Your task to perform on an android device: Search for "logitech g pro" on target.com, select the first entry, add it to the cart, then select checkout. Image 0: 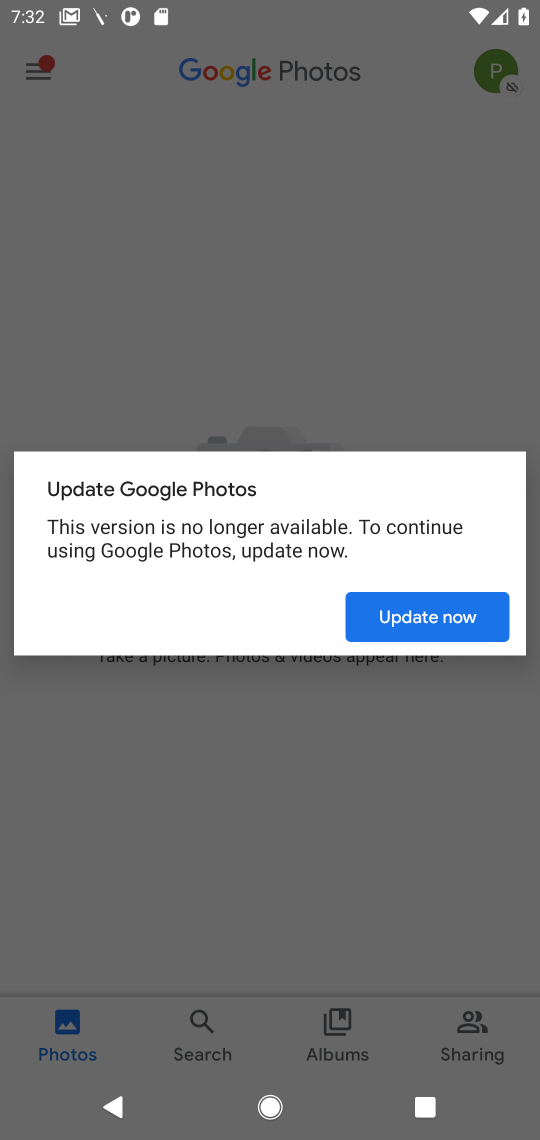
Step 0: press home button
Your task to perform on an android device: Search for "logitech g pro" on target.com, select the first entry, add it to the cart, then select checkout. Image 1: 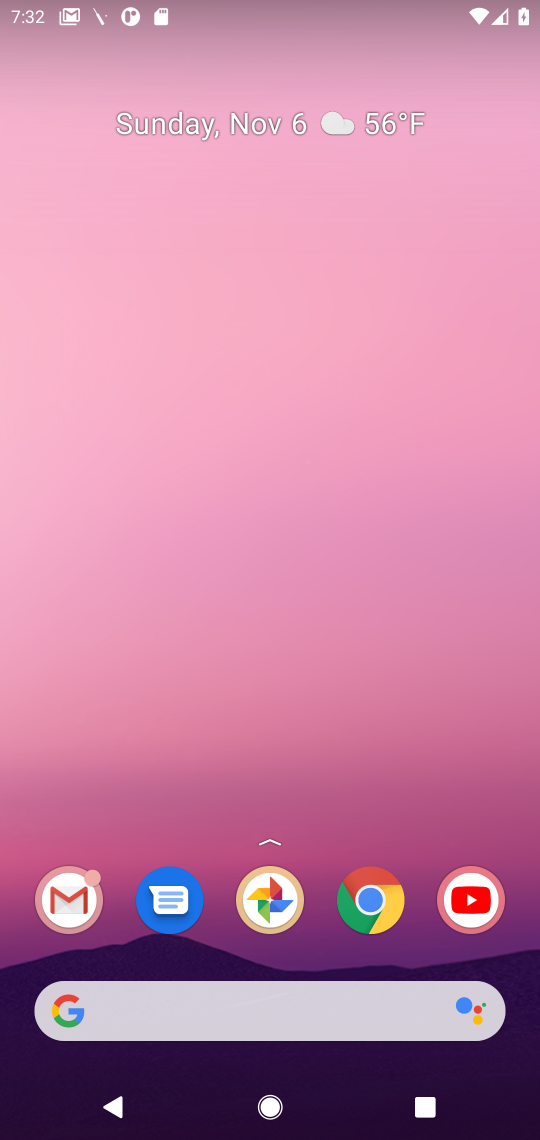
Step 1: drag from (325, 533) to (308, 0)
Your task to perform on an android device: Search for "logitech g pro" on target.com, select the first entry, add it to the cart, then select checkout. Image 2: 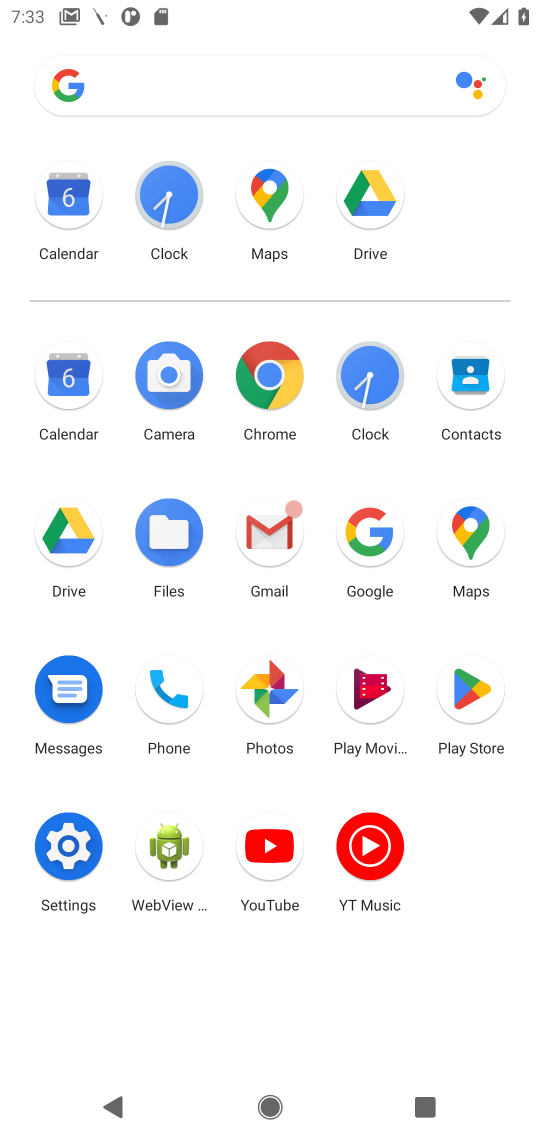
Step 2: click (267, 374)
Your task to perform on an android device: Search for "logitech g pro" on target.com, select the first entry, add it to the cart, then select checkout. Image 3: 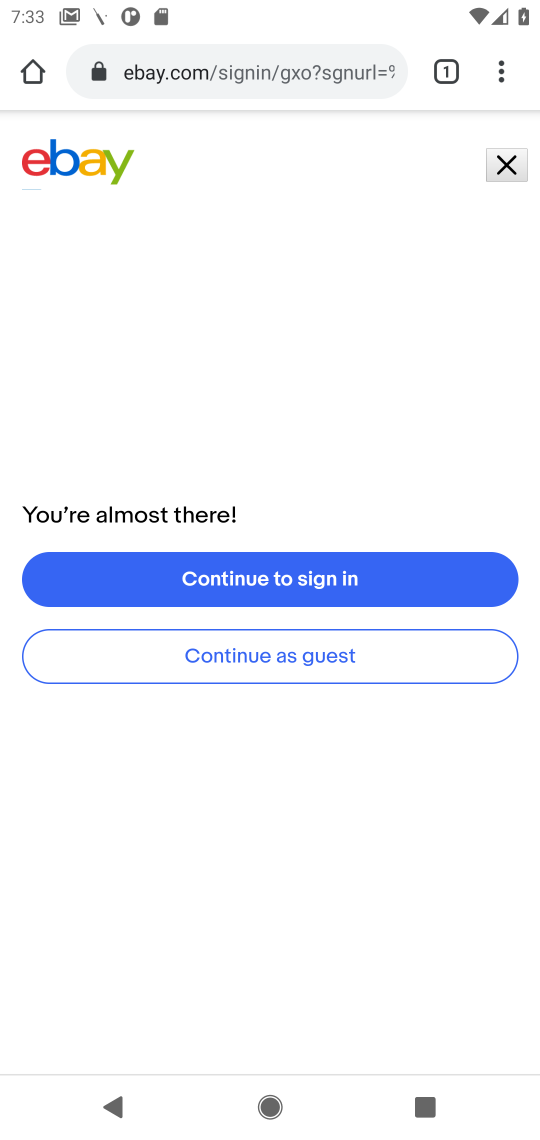
Step 3: click (323, 67)
Your task to perform on an android device: Search for "logitech g pro" on target.com, select the first entry, add it to the cart, then select checkout. Image 4: 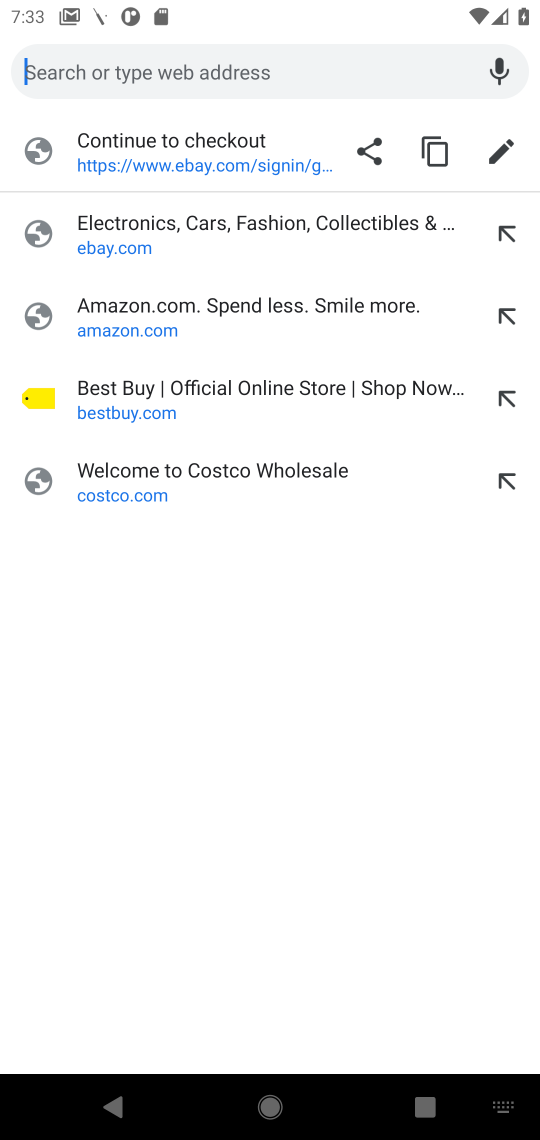
Step 4: type "target.com"
Your task to perform on an android device: Search for "logitech g pro" on target.com, select the first entry, add it to the cart, then select checkout. Image 5: 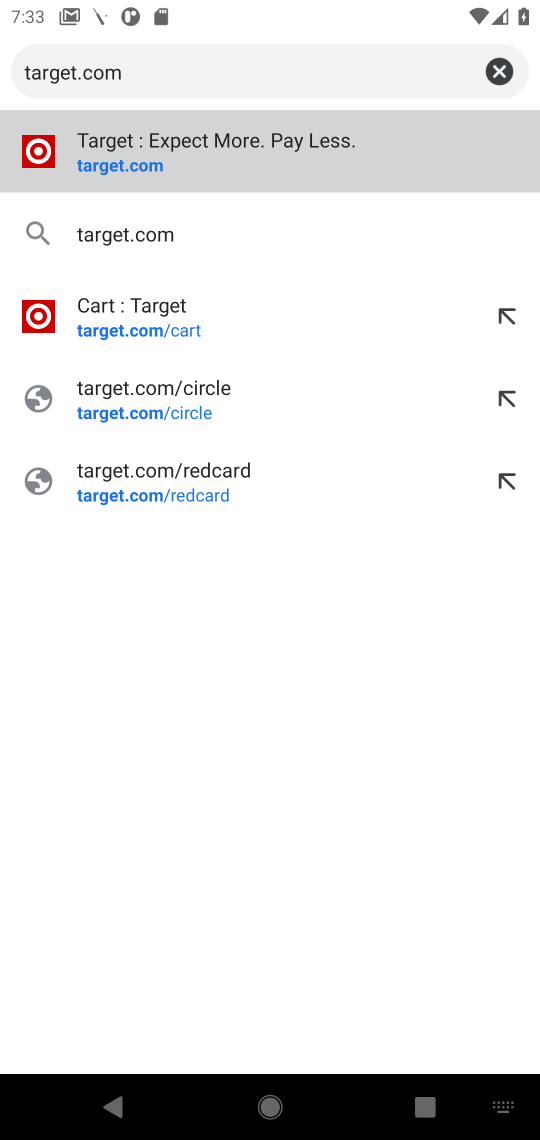
Step 5: press enter
Your task to perform on an android device: Search for "logitech g pro" on target.com, select the first entry, add it to the cart, then select checkout. Image 6: 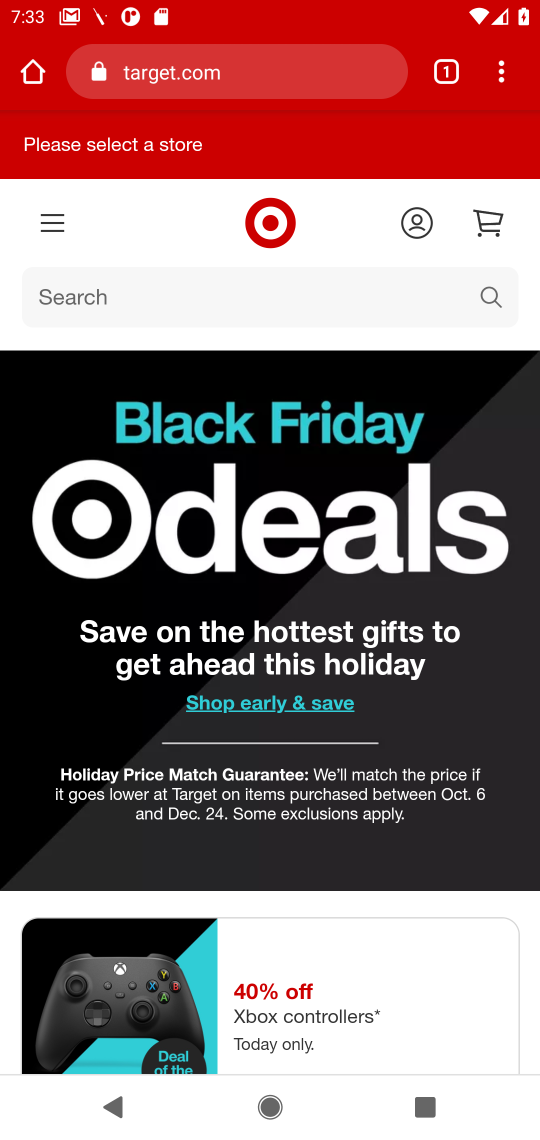
Step 6: click (390, 297)
Your task to perform on an android device: Search for "logitech g pro" on target.com, select the first entry, add it to the cart, then select checkout. Image 7: 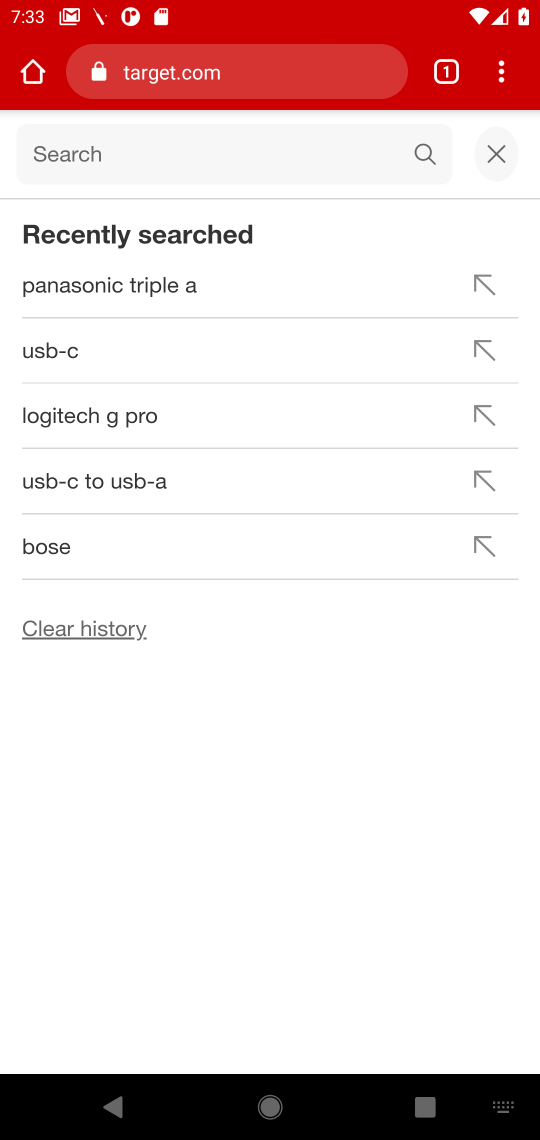
Step 7: type "logitech g pro"
Your task to perform on an android device: Search for "logitech g pro" on target.com, select the first entry, add it to the cart, then select checkout. Image 8: 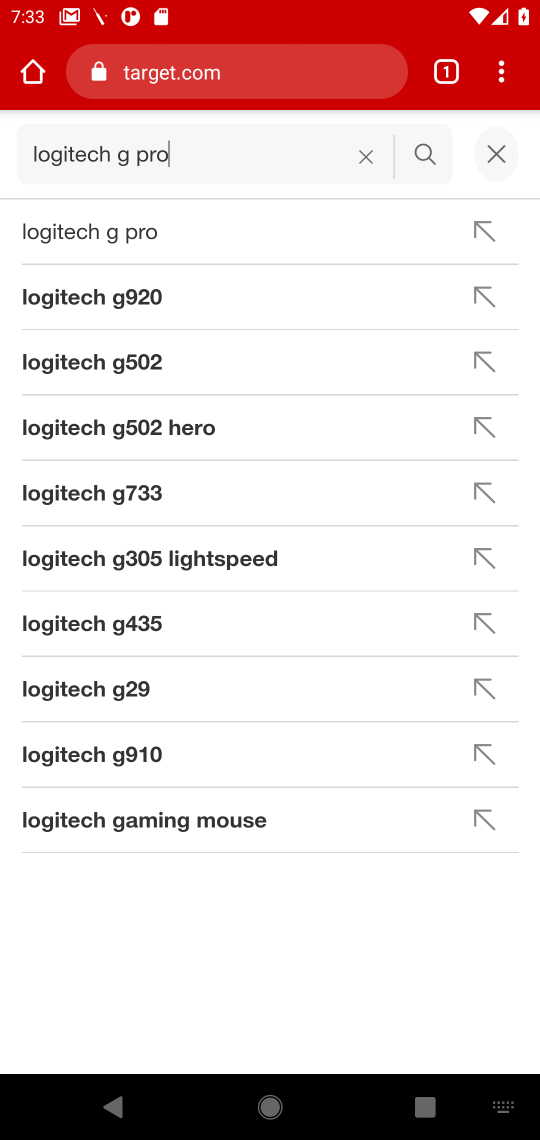
Step 8: press enter
Your task to perform on an android device: Search for "logitech g pro" on target.com, select the first entry, add it to the cart, then select checkout. Image 9: 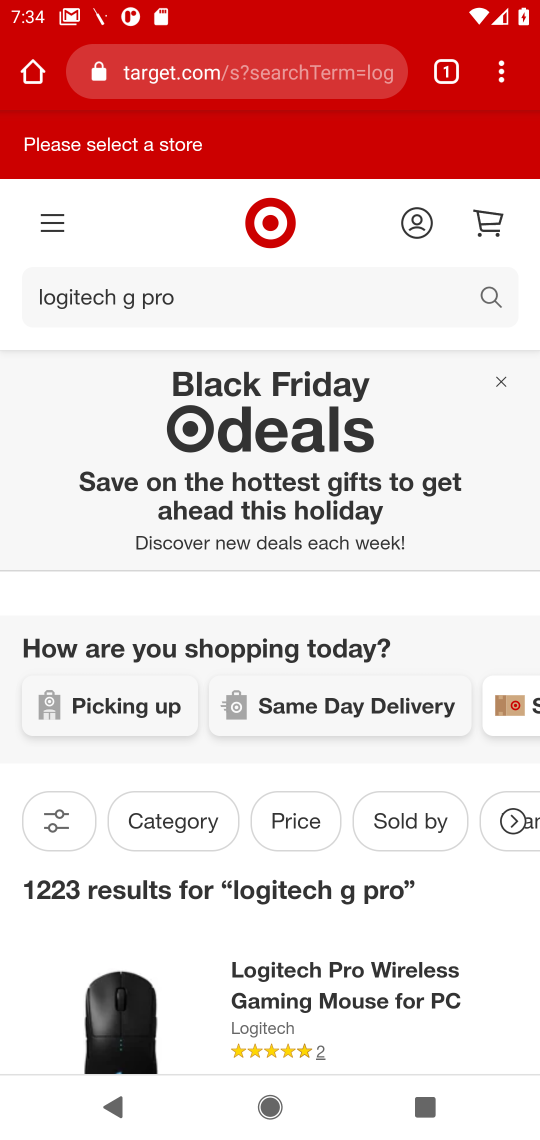
Step 9: task complete